Your task to perform on an android device: Go to wifi settings Image 0: 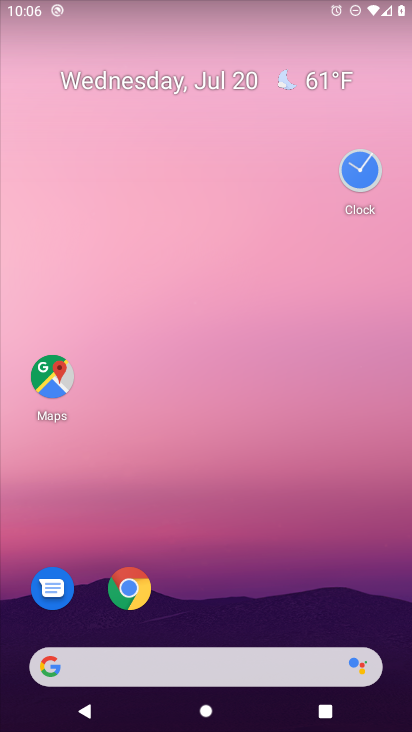
Step 0: drag from (26, 689) to (214, 0)
Your task to perform on an android device: Go to wifi settings Image 1: 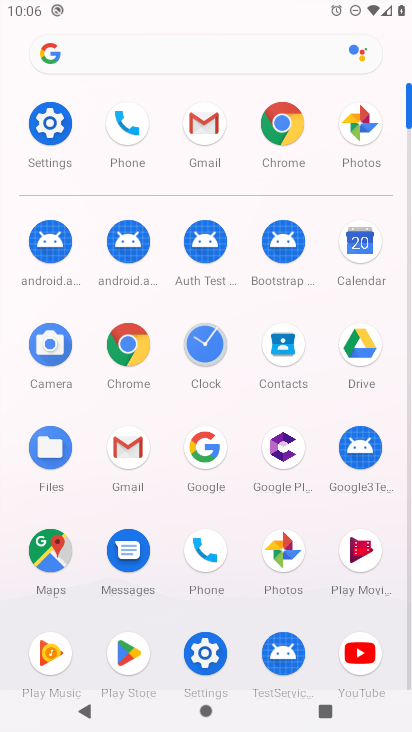
Step 1: click (206, 645)
Your task to perform on an android device: Go to wifi settings Image 2: 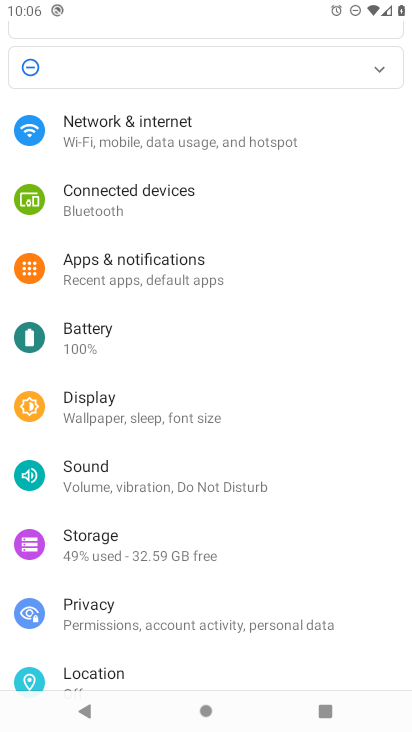
Step 2: click (170, 104)
Your task to perform on an android device: Go to wifi settings Image 3: 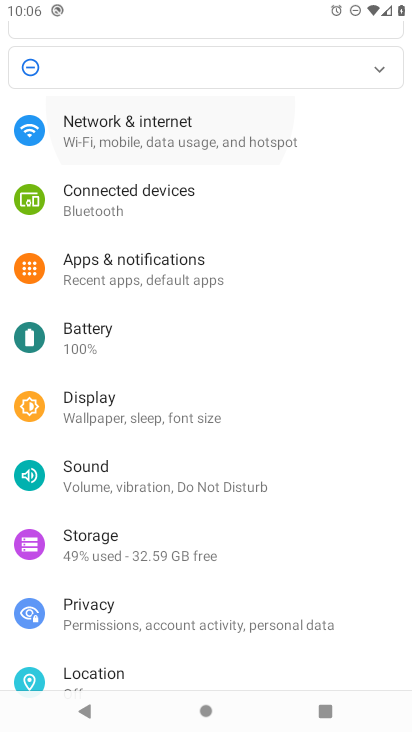
Step 3: click (169, 116)
Your task to perform on an android device: Go to wifi settings Image 4: 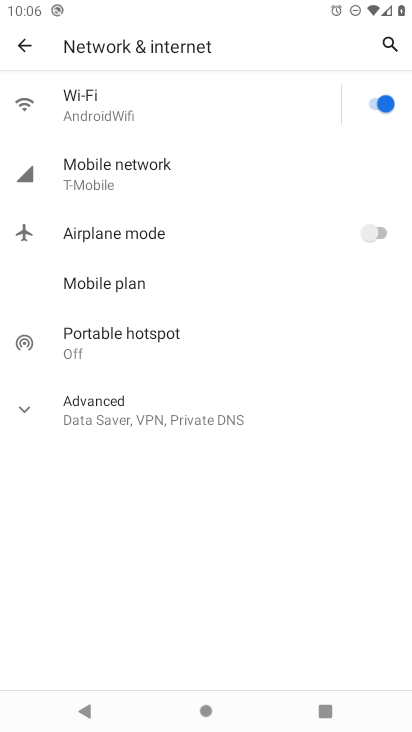
Step 4: task complete